Your task to perform on an android device: open chrome privacy settings Image 0: 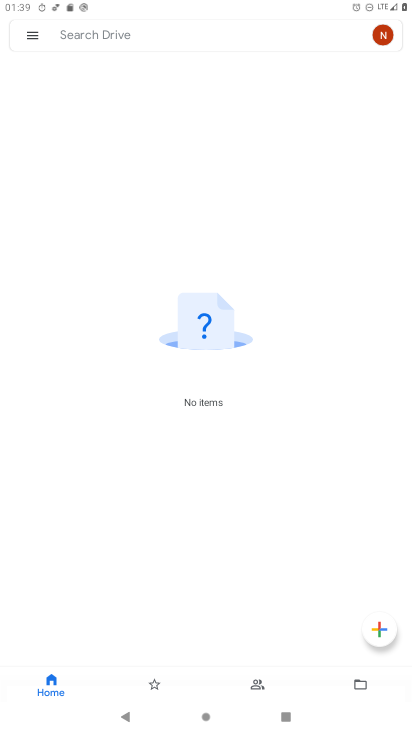
Step 0: press home button
Your task to perform on an android device: open chrome privacy settings Image 1: 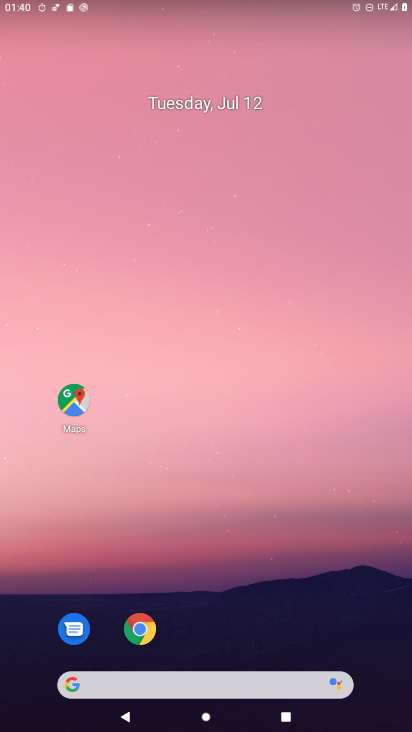
Step 1: click (135, 637)
Your task to perform on an android device: open chrome privacy settings Image 2: 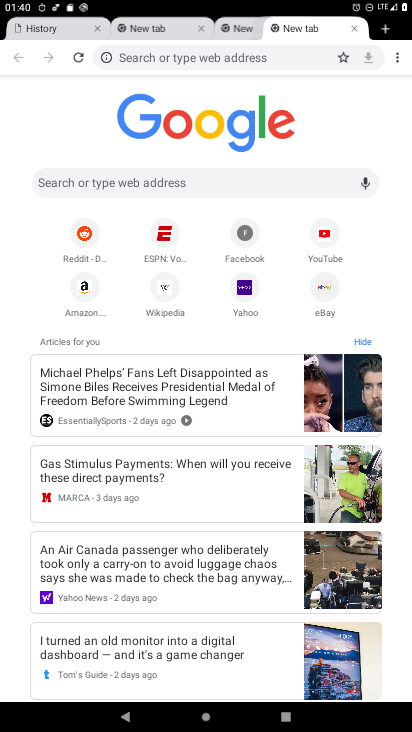
Step 2: click (399, 53)
Your task to perform on an android device: open chrome privacy settings Image 3: 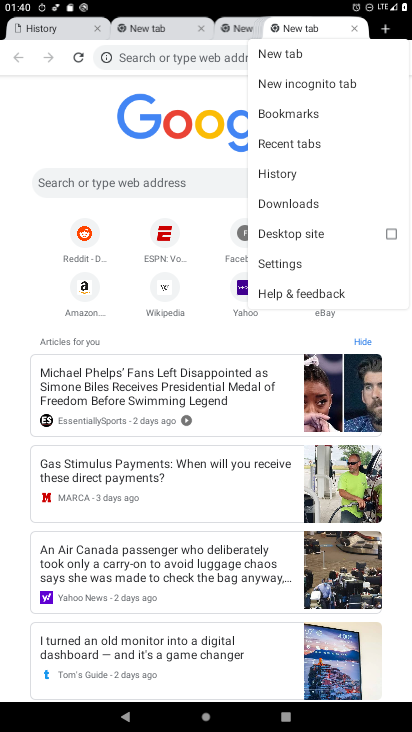
Step 3: click (287, 255)
Your task to perform on an android device: open chrome privacy settings Image 4: 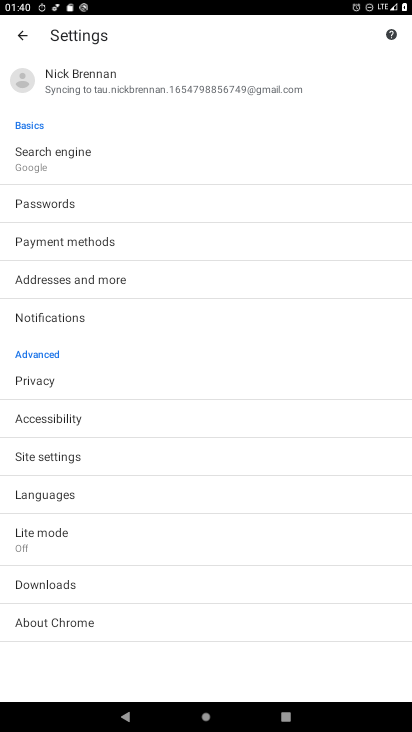
Step 4: click (42, 375)
Your task to perform on an android device: open chrome privacy settings Image 5: 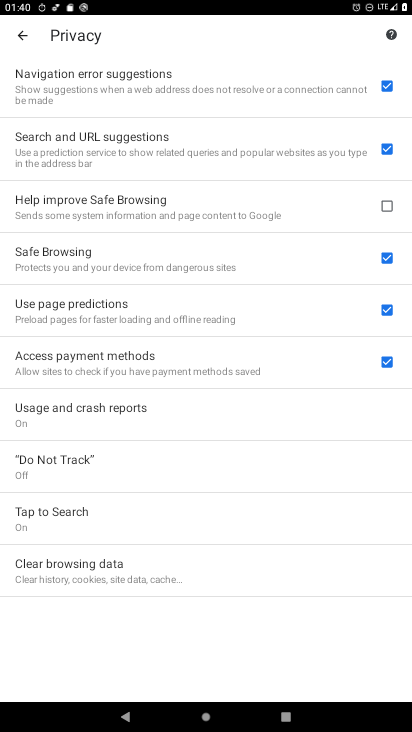
Step 5: task complete